Your task to perform on an android device: turn pop-ups off in chrome Image 0: 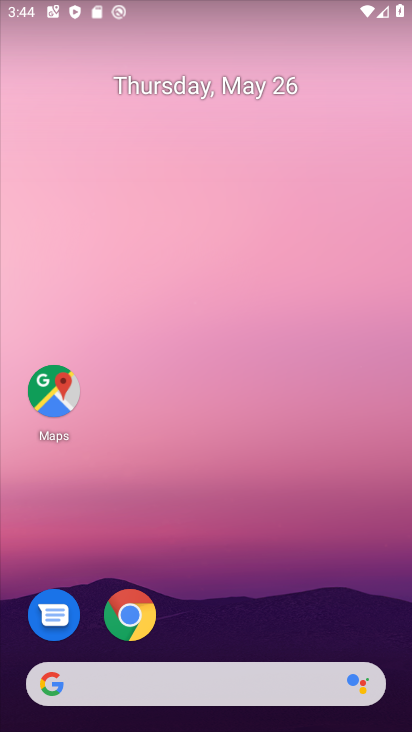
Step 0: click (119, 612)
Your task to perform on an android device: turn pop-ups off in chrome Image 1: 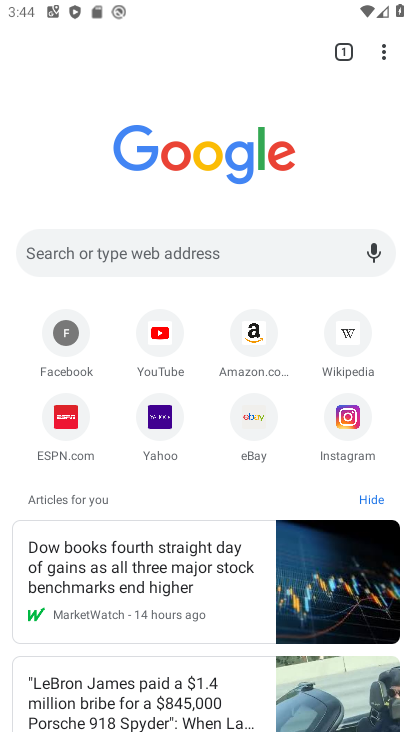
Step 1: drag from (394, 62) to (281, 441)
Your task to perform on an android device: turn pop-ups off in chrome Image 2: 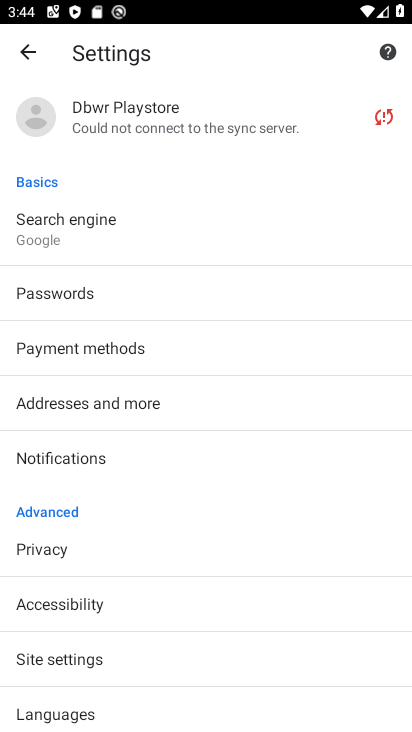
Step 2: drag from (217, 659) to (305, 376)
Your task to perform on an android device: turn pop-ups off in chrome Image 3: 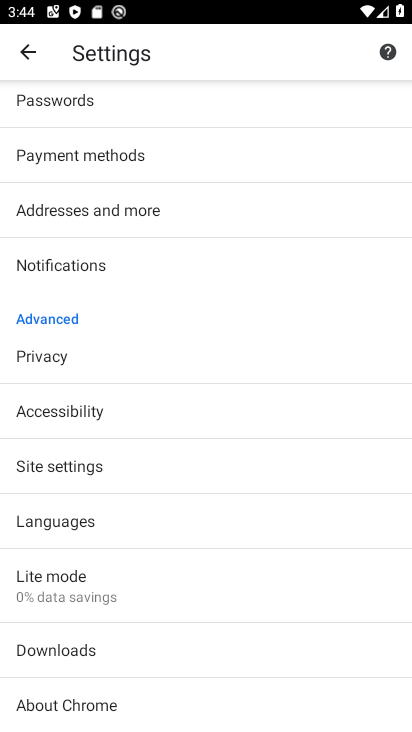
Step 3: click (92, 466)
Your task to perform on an android device: turn pop-ups off in chrome Image 4: 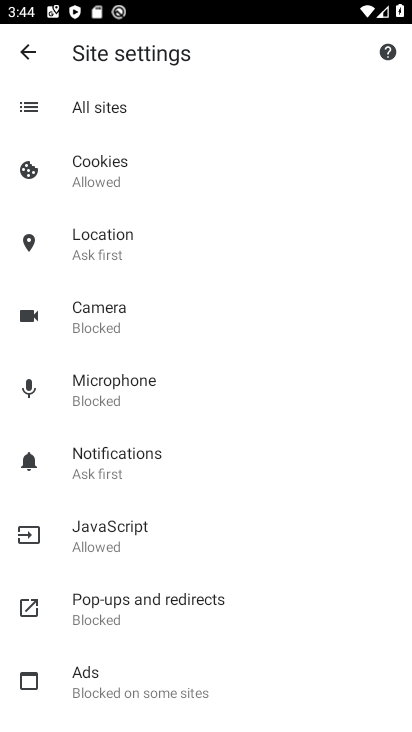
Step 4: drag from (181, 687) to (342, 287)
Your task to perform on an android device: turn pop-ups off in chrome Image 5: 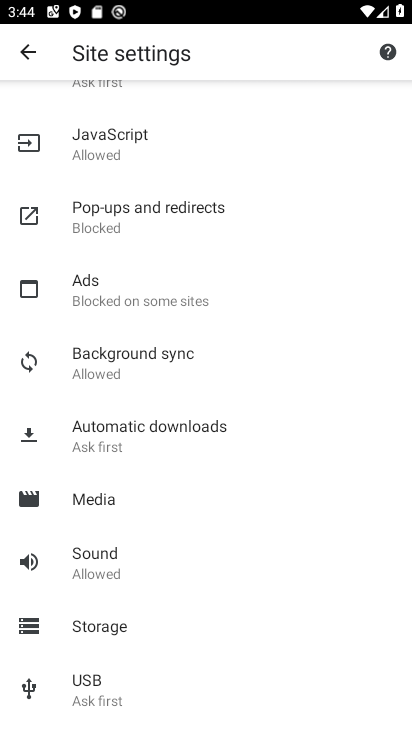
Step 5: drag from (225, 653) to (265, 520)
Your task to perform on an android device: turn pop-ups off in chrome Image 6: 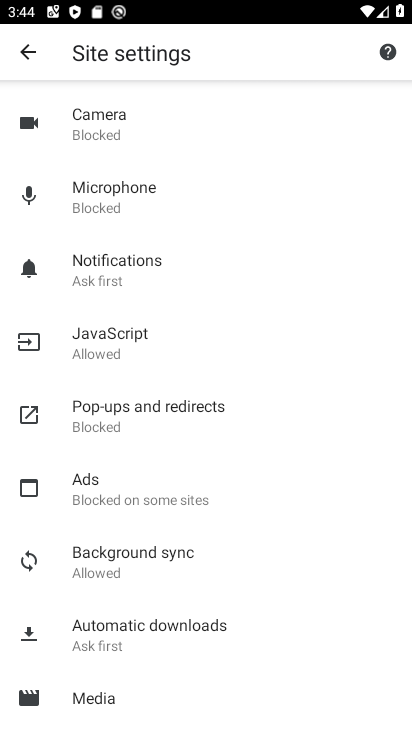
Step 6: click (193, 428)
Your task to perform on an android device: turn pop-ups off in chrome Image 7: 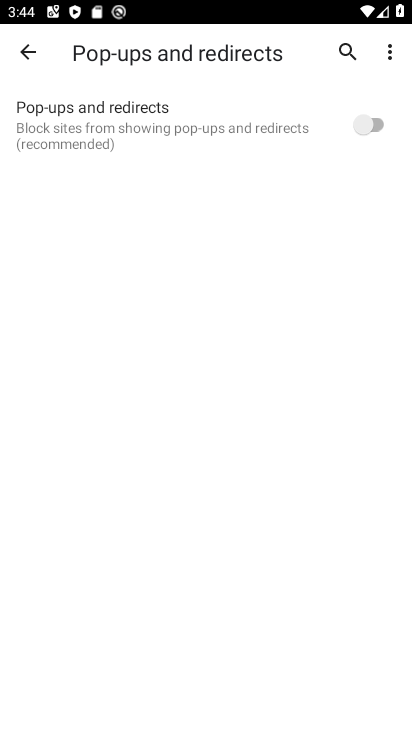
Step 7: task complete